Your task to perform on an android device: Search for Mexican restaurants on Maps Image 0: 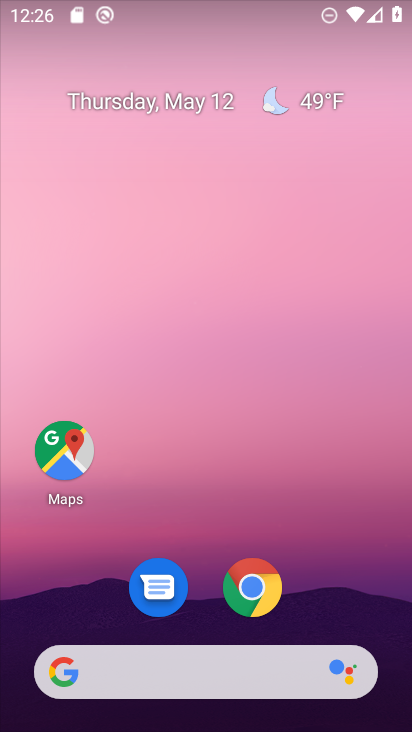
Step 0: drag from (312, 592) to (338, 294)
Your task to perform on an android device: Search for Mexican restaurants on Maps Image 1: 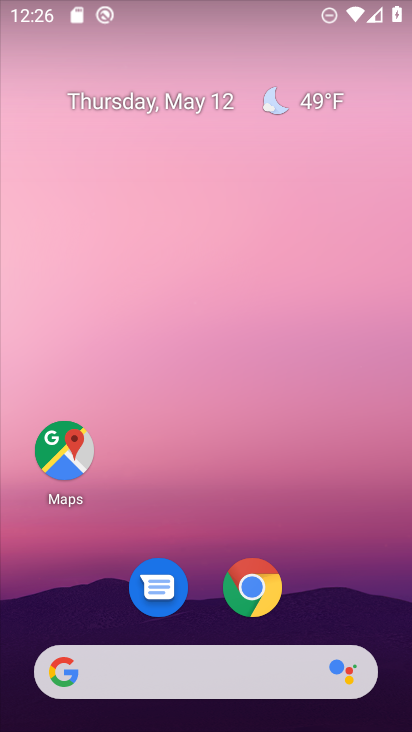
Step 1: drag from (328, 351) to (328, 251)
Your task to perform on an android device: Search for Mexican restaurants on Maps Image 2: 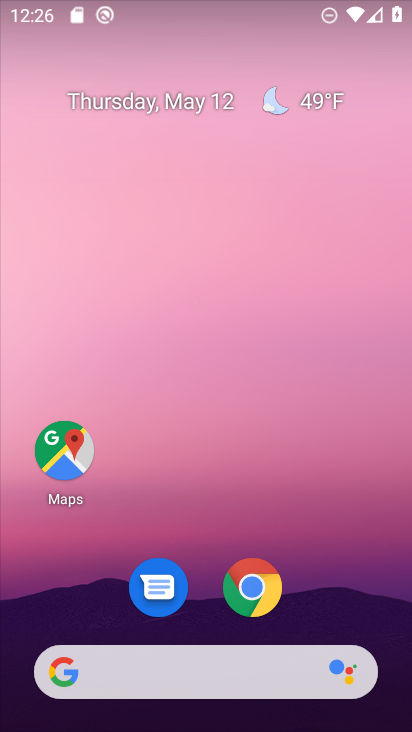
Step 2: drag from (283, 488) to (282, 310)
Your task to perform on an android device: Search for Mexican restaurants on Maps Image 3: 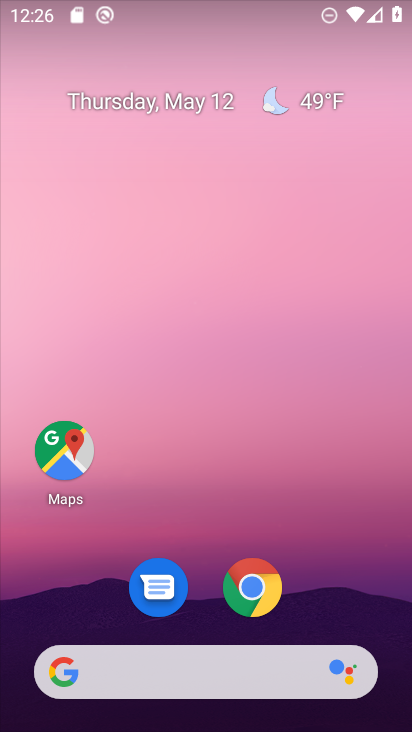
Step 3: drag from (217, 655) to (214, 292)
Your task to perform on an android device: Search for Mexican restaurants on Maps Image 4: 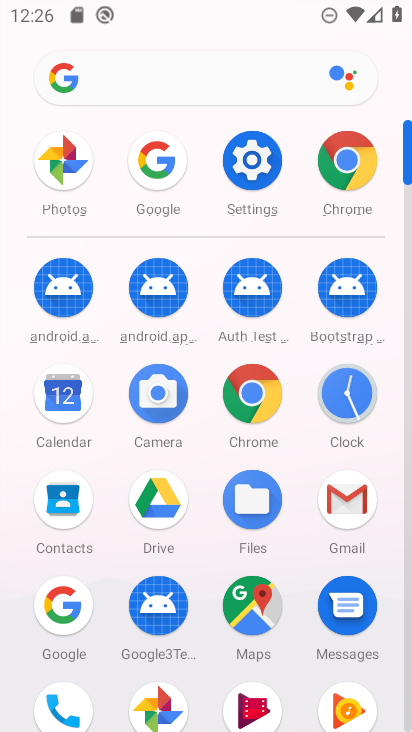
Step 4: click (252, 607)
Your task to perform on an android device: Search for Mexican restaurants on Maps Image 5: 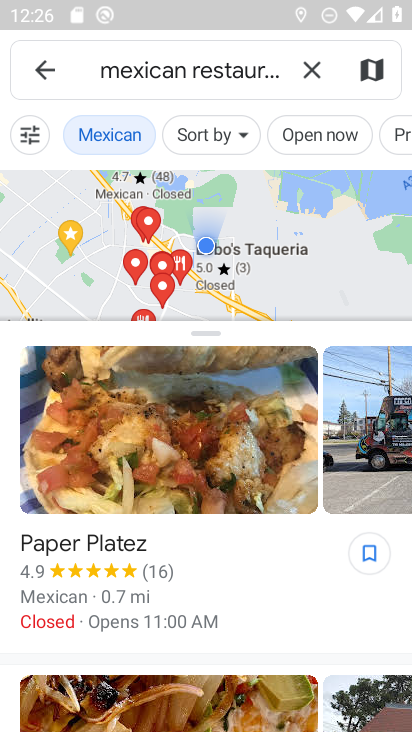
Step 5: task complete